Your task to perform on an android device: Open sound settings Image 0: 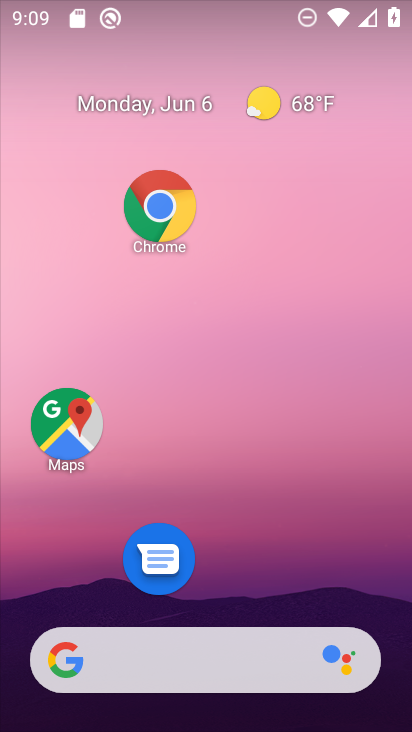
Step 0: drag from (274, 281) to (275, 186)
Your task to perform on an android device: Open sound settings Image 1: 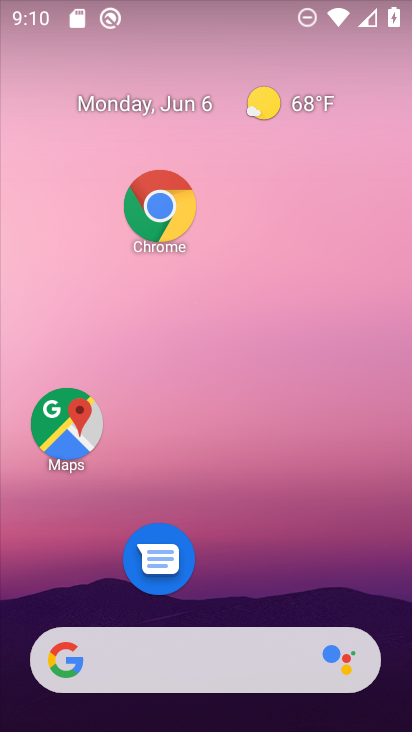
Step 1: drag from (249, 534) to (224, 108)
Your task to perform on an android device: Open sound settings Image 2: 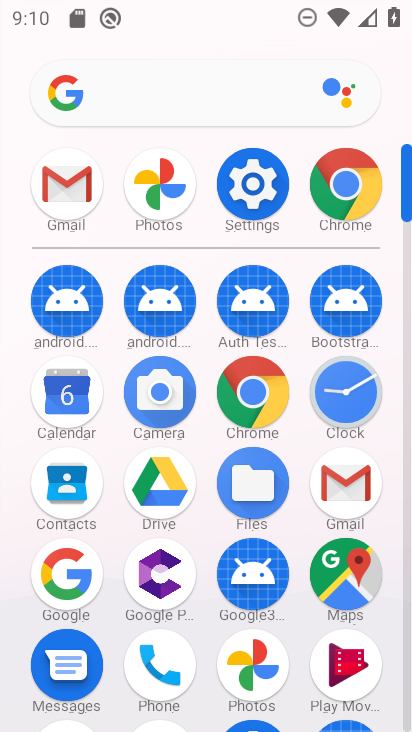
Step 2: drag from (242, 546) to (266, 123)
Your task to perform on an android device: Open sound settings Image 3: 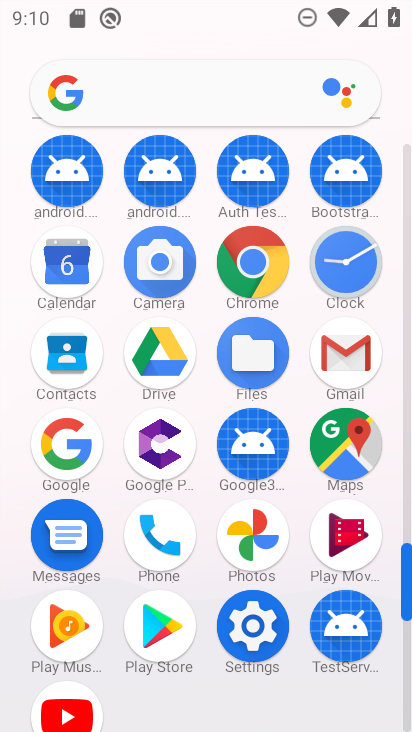
Step 3: click (255, 640)
Your task to perform on an android device: Open sound settings Image 4: 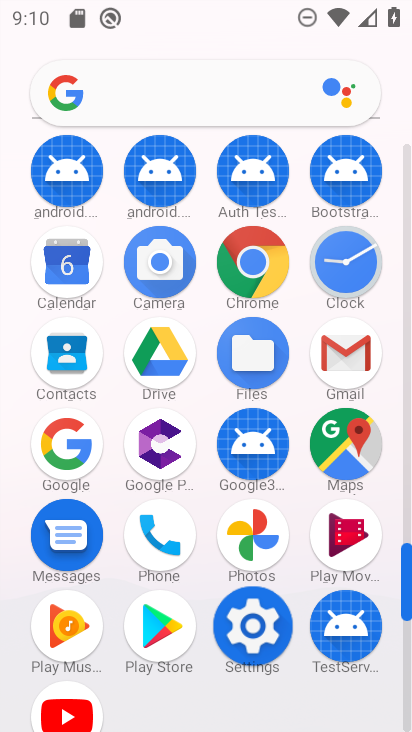
Step 4: click (254, 639)
Your task to perform on an android device: Open sound settings Image 5: 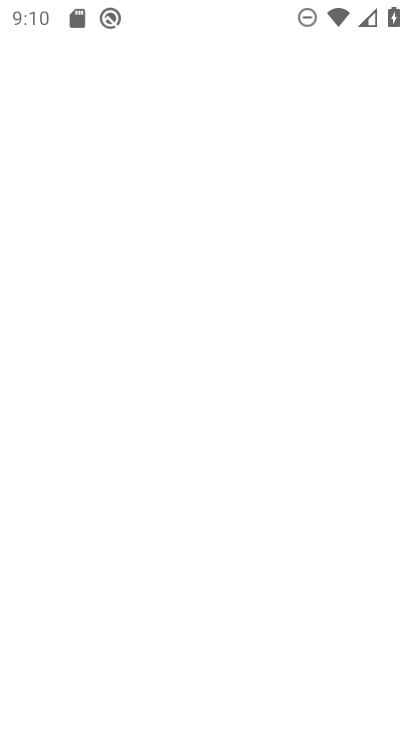
Step 5: click (254, 636)
Your task to perform on an android device: Open sound settings Image 6: 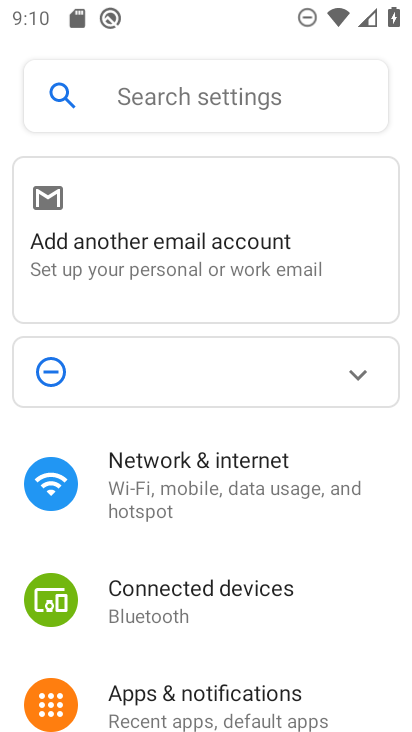
Step 6: drag from (175, 251) to (219, 210)
Your task to perform on an android device: Open sound settings Image 7: 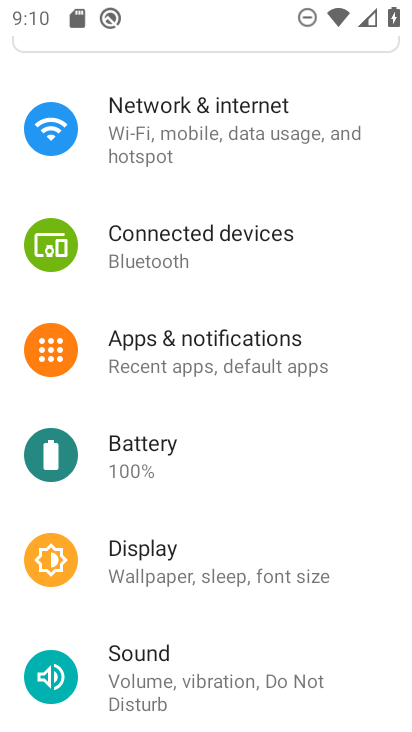
Step 7: drag from (217, 369) to (218, 212)
Your task to perform on an android device: Open sound settings Image 8: 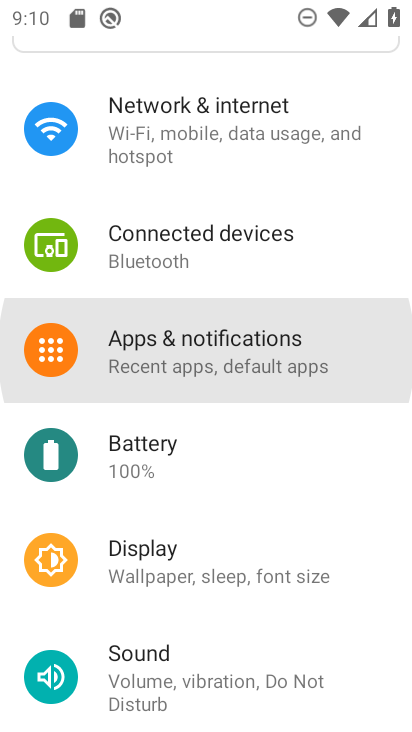
Step 8: click (204, 227)
Your task to perform on an android device: Open sound settings Image 9: 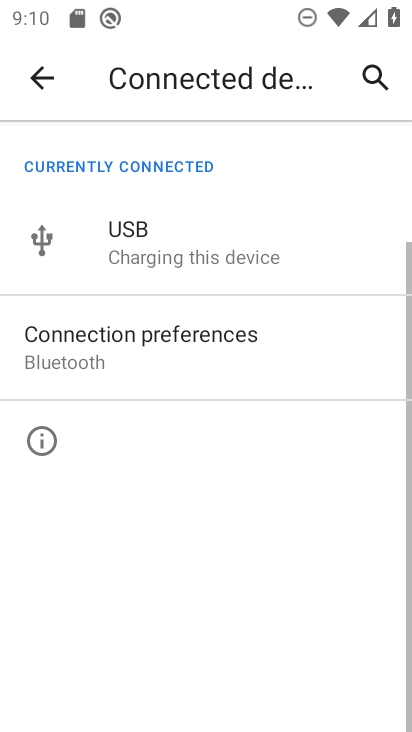
Step 9: click (48, 77)
Your task to perform on an android device: Open sound settings Image 10: 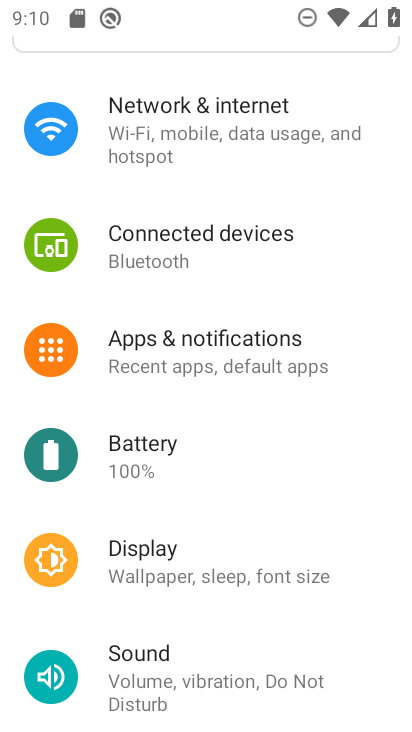
Step 10: click (149, 670)
Your task to perform on an android device: Open sound settings Image 11: 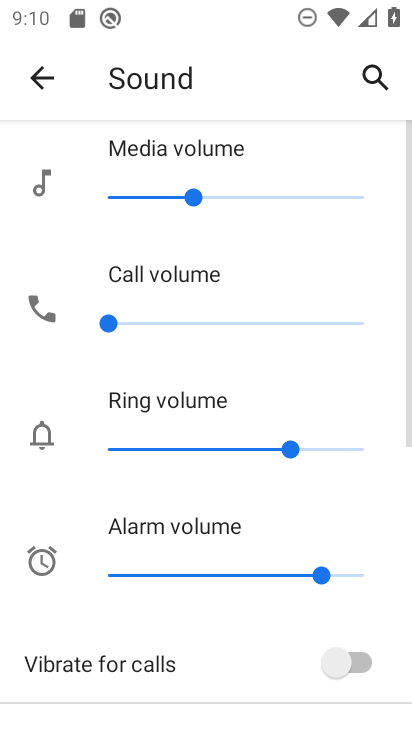
Step 11: task complete